Your task to perform on an android device: Go to battery settings Image 0: 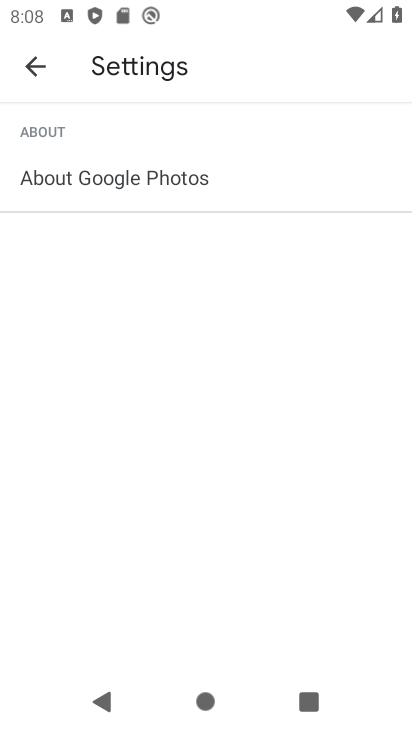
Step 0: press home button
Your task to perform on an android device: Go to battery settings Image 1: 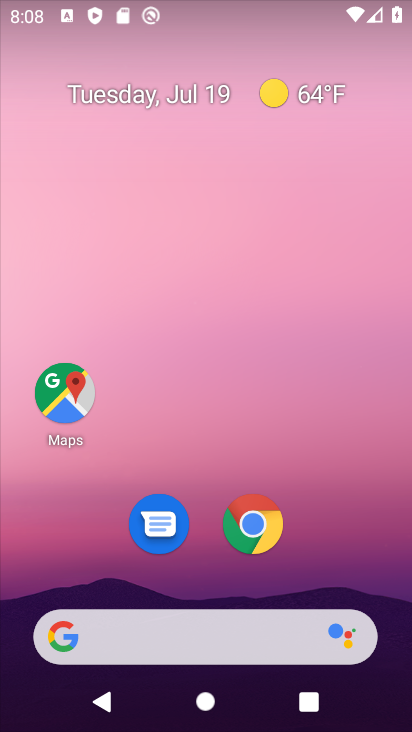
Step 1: drag from (312, 544) to (313, 19)
Your task to perform on an android device: Go to battery settings Image 2: 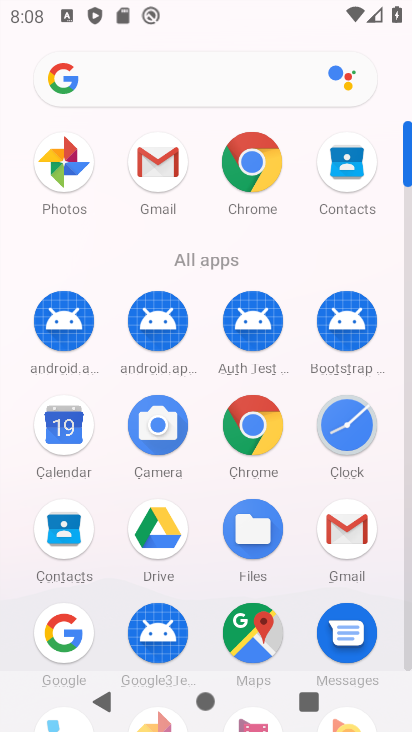
Step 2: drag from (192, 504) to (247, 146)
Your task to perform on an android device: Go to battery settings Image 3: 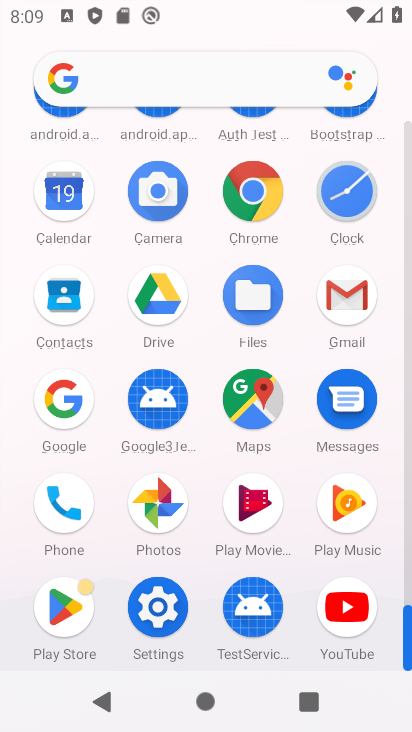
Step 3: click (167, 600)
Your task to perform on an android device: Go to battery settings Image 4: 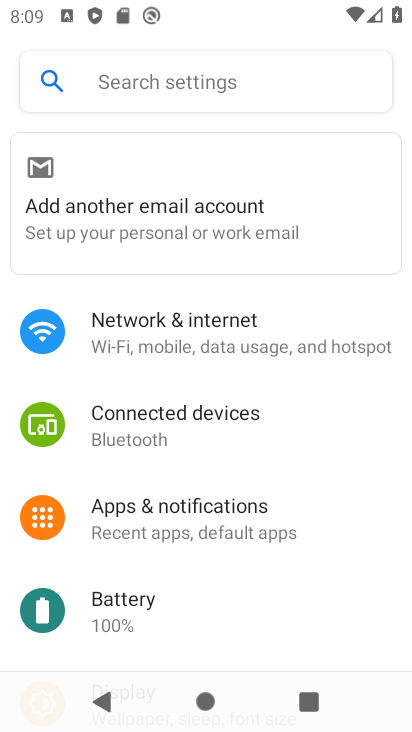
Step 4: click (138, 612)
Your task to perform on an android device: Go to battery settings Image 5: 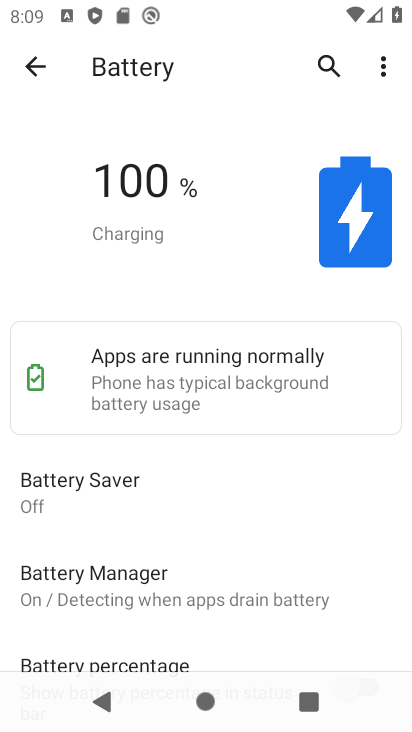
Step 5: task complete